Your task to perform on an android device: Open the Play Movies app and select the watchlist tab. Image 0: 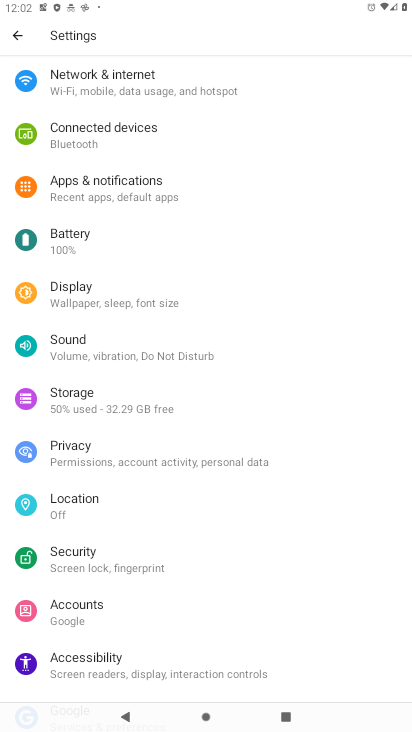
Step 0: press home button
Your task to perform on an android device: Open the Play Movies app and select the watchlist tab. Image 1: 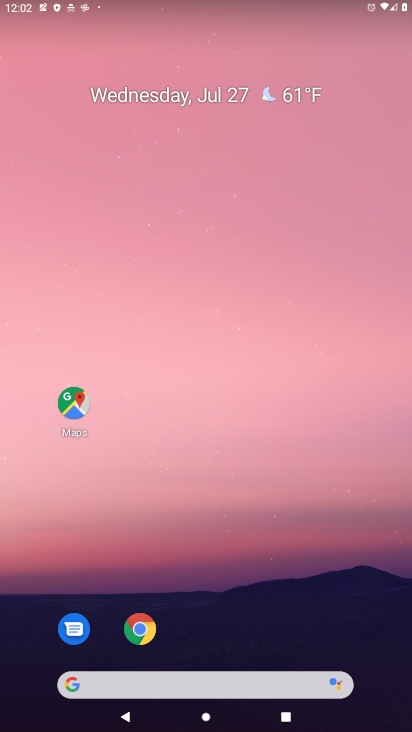
Step 1: drag from (221, 645) to (226, 4)
Your task to perform on an android device: Open the Play Movies app and select the watchlist tab. Image 2: 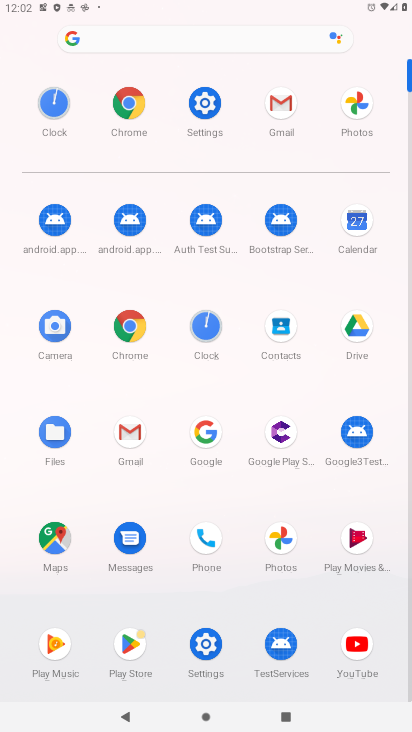
Step 2: click (354, 570)
Your task to perform on an android device: Open the Play Movies app and select the watchlist tab. Image 3: 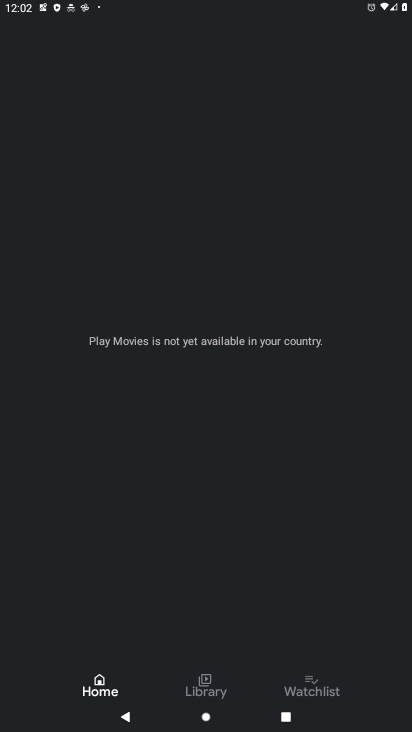
Step 3: click (319, 690)
Your task to perform on an android device: Open the Play Movies app and select the watchlist tab. Image 4: 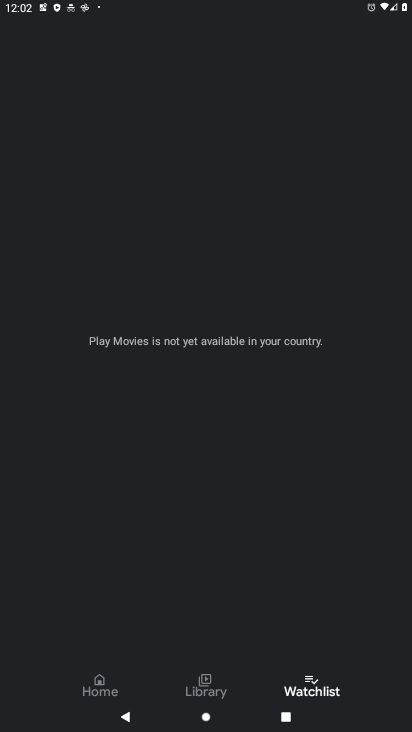
Step 4: task complete